Your task to perform on an android device: Search for Italian restaurants on Maps Image 0: 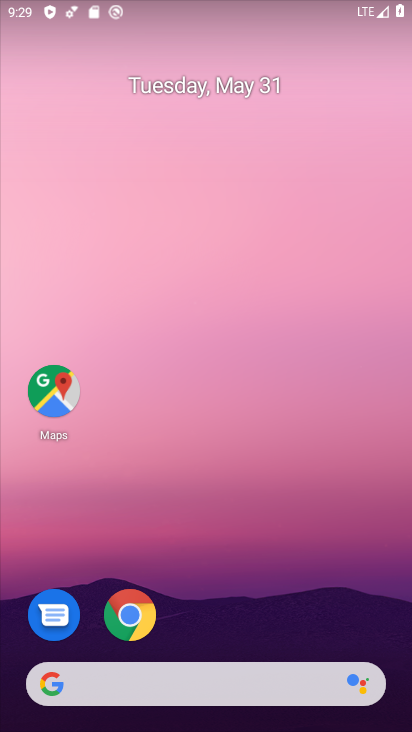
Step 0: drag from (348, 466) to (358, 73)
Your task to perform on an android device: Search for Italian restaurants on Maps Image 1: 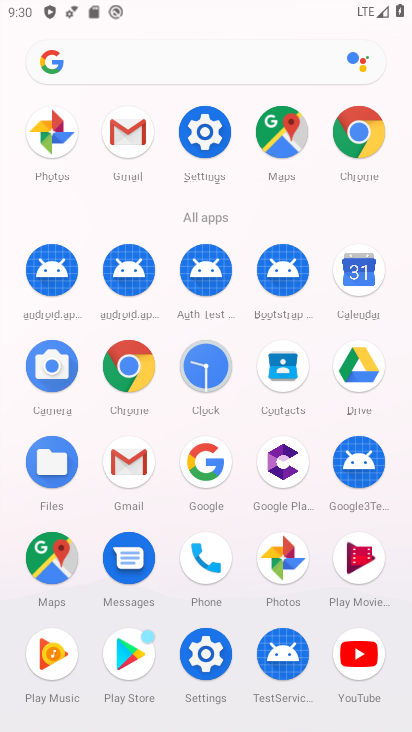
Step 1: click (277, 144)
Your task to perform on an android device: Search for Italian restaurants on Maps Image 2: 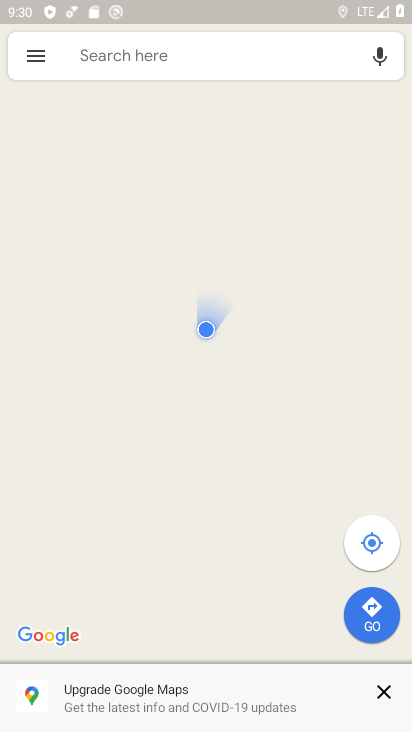
Step 2: click (185, 50)
Your task to perform on an android device: Search for Italian restaurants on Maps Image 3: 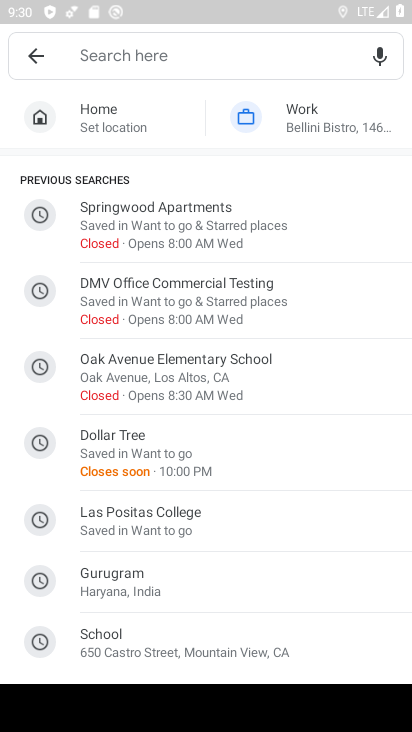
Step 3: drag from (314, 538) to (383, 185)
Your task to perform on an android device: Search for Italian restaurants on Maps Image 4: 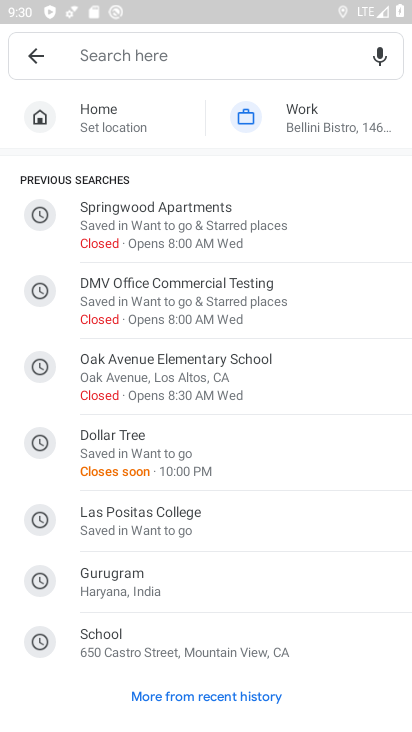
Step 4: drag from (374, 339) to (326, 658)
Your task to perform on an android device: Search for Italian restaurants on Maps Image 5: 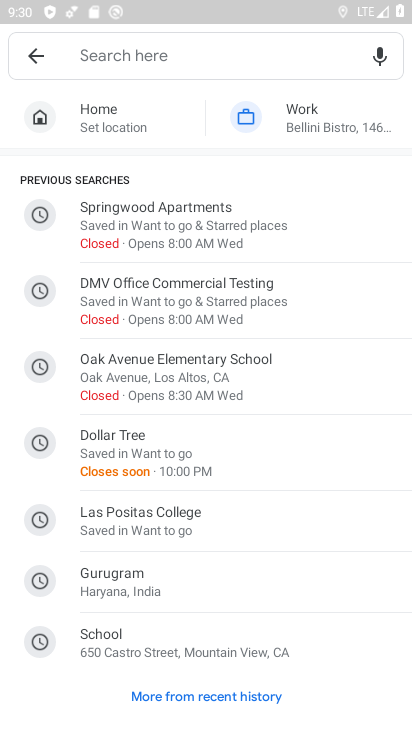
Step 5: type "italian resturents"
Your task to perform on an android device: Search for Italian restaurants on Maps Image 6: 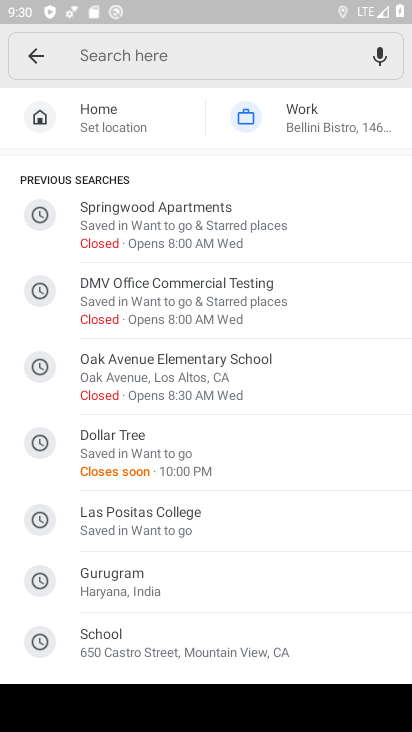
Step 6: drag from (231, 277) to (218, 598)
Your task to perform on an android device: Search for Italian restaurants on Maps Image 7: 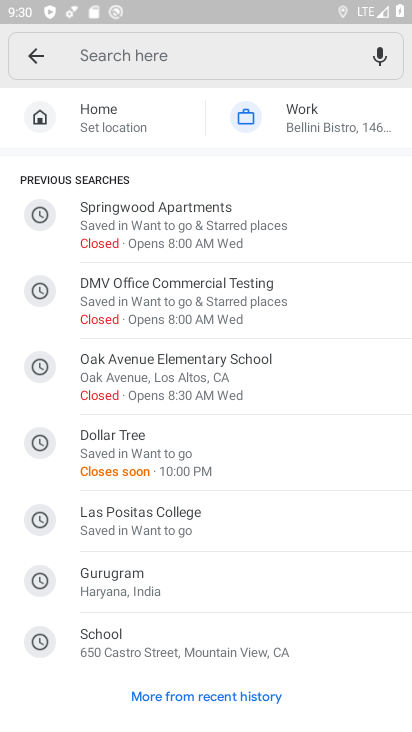
Step 7: drag from (352, 211) to (319, 533)
Your task to perform on an android device: Search for Italian restaurants on Maps Image 8: 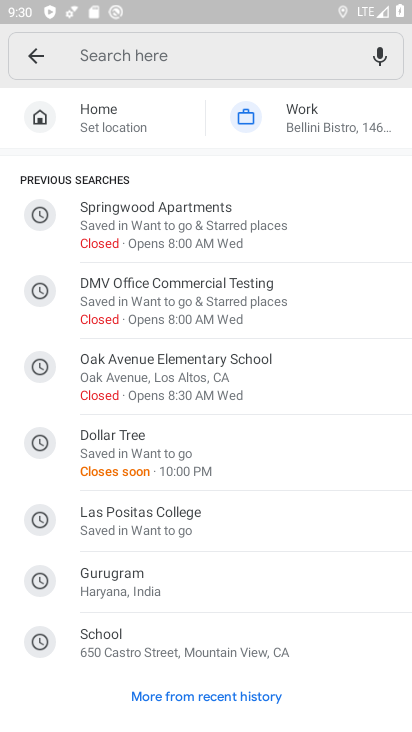
Step 8: click (196, 64)
Your task to perform on an android device: Search for Italian restaurants on Maps Image 9: 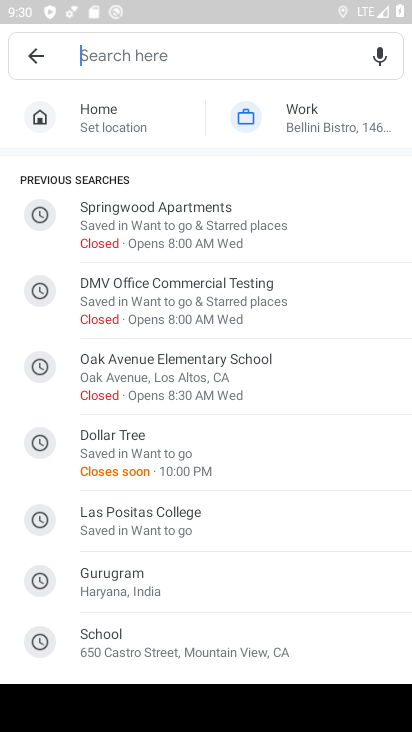
Step 9: type "italian "
Your task to perform on an android device: Search for Italian restaurants on Maps Image 10: 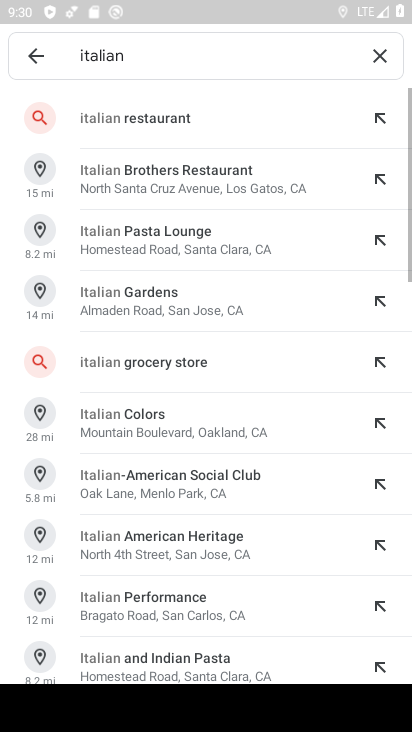
Step 10: click (151, 122)
Your task to perform on an android device: Search for Italian restaurants on Maps Image 11: 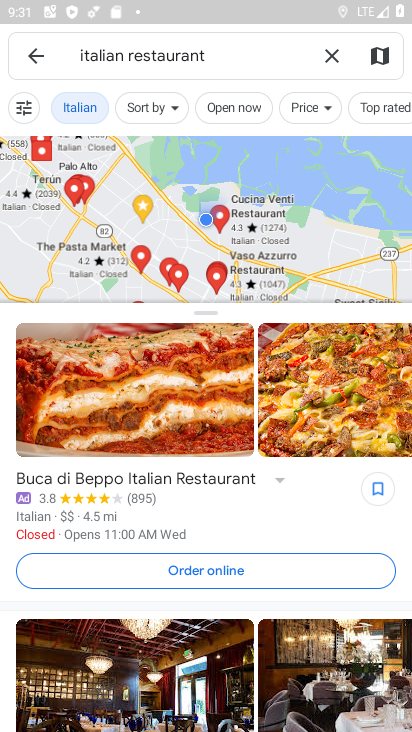
Step 11: task complete